Your task to perform on an android device: What is the recent news? Image 0: 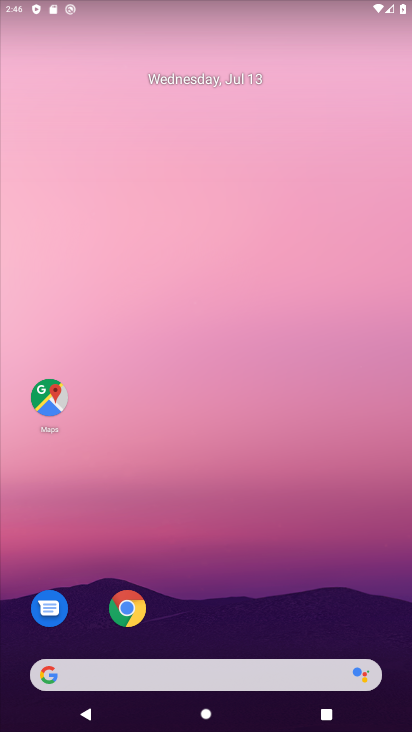
Step 0: click (331, 233)
Your task to perform on an android device: What is the recent news? Image 1: 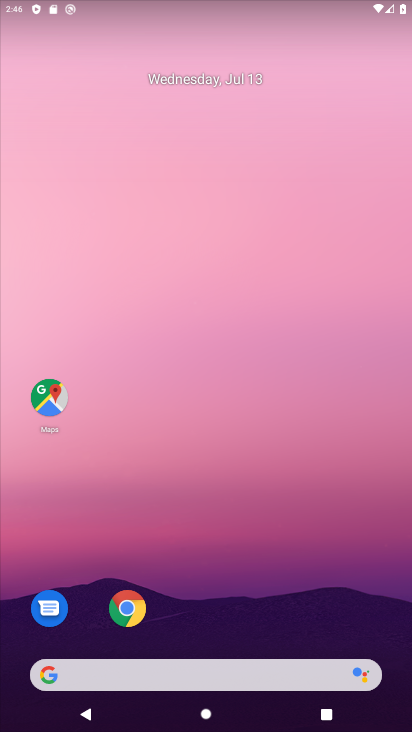
Step 1: task complete